Your task to perform on an android device: turn notification dots on Image 0: 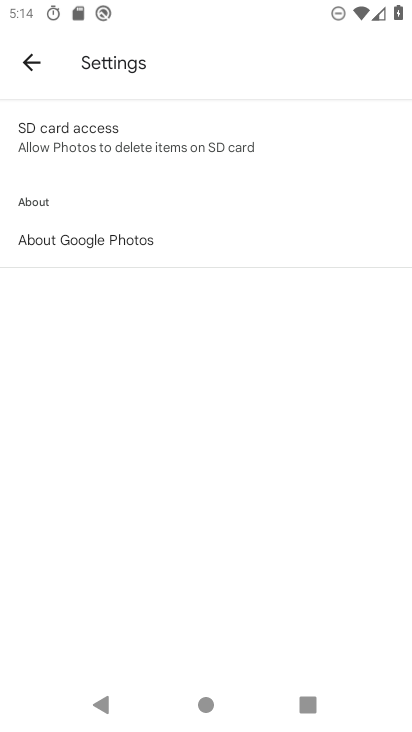
Step 0: press home button
Your task to perform on an android device: turn notification dots on Image 1: 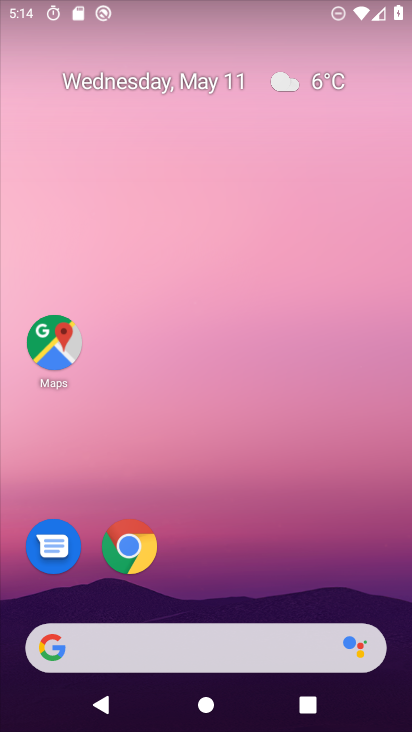
Step 1: drag from (258, 624) to (234, 176)
Your task to perform on an android device: turn notification dots on Image 2: 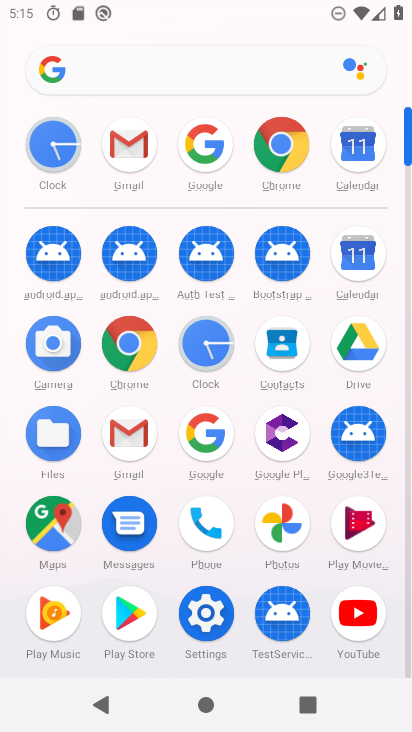
Step 2: click (206, 616)
Your task to perform on an android device: turn notification dots on Image 3: 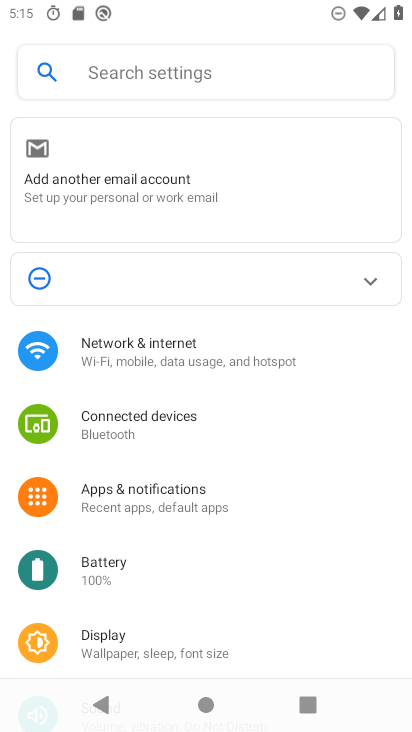
Step 3: click (155, 500)
Your task to perform on an android device: turn notification dots on Image 4: 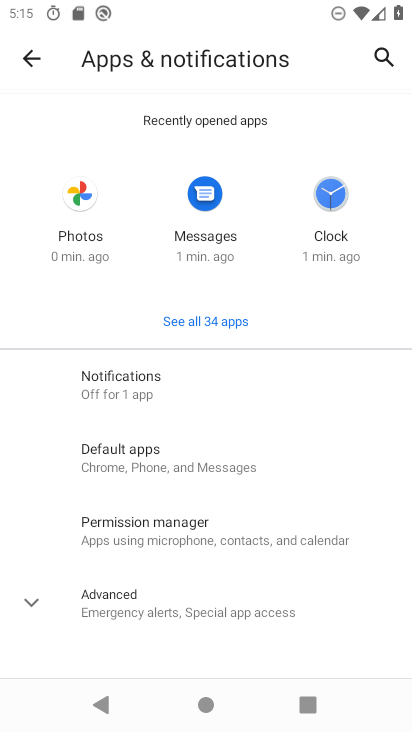
Step 4: click (142, 377)
Your task to perform on an android device: turn notification dots on Image 5: 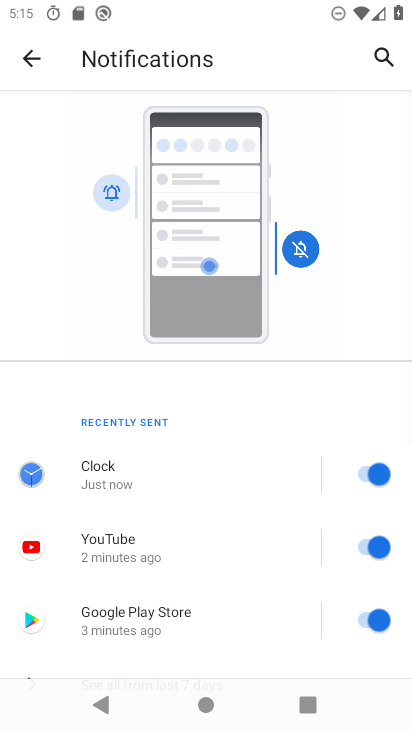
Step 5: drag from (158, 638) to (156, 220)
Your task to perform on an android device: turn notification dots on Image 6: 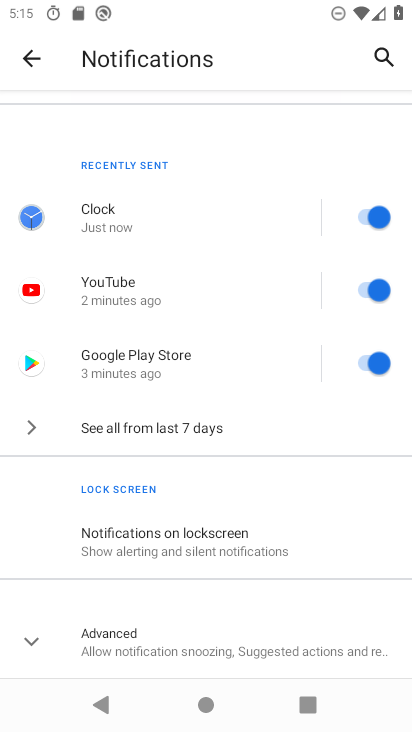
Step 6: click (131, 642)
Your task to perform on an android device: turn notification dots on Image 7: 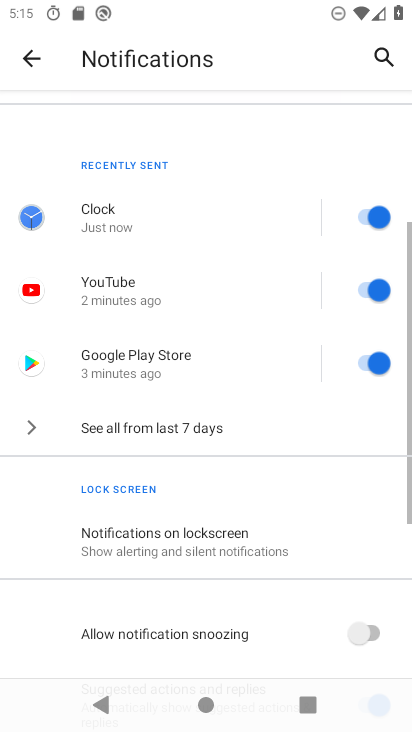
Step 7: drag from (139, 650) to (104, 303)
Your task to perform on an android device: turn notification dots on Image 8: 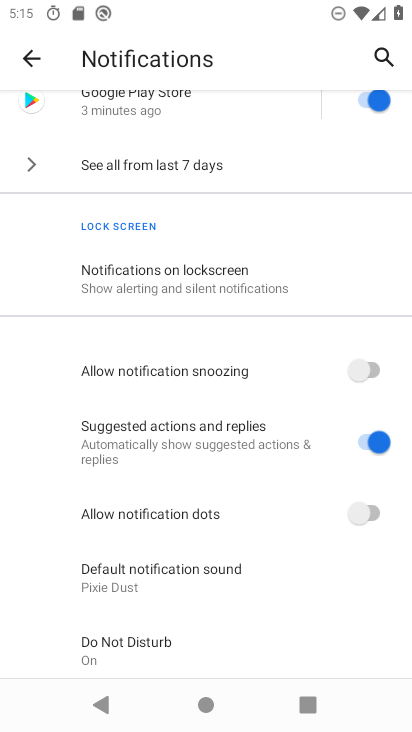
Step 8: click (376, 514)
Your task to perform on an android device: turn notification dots on Image 9: 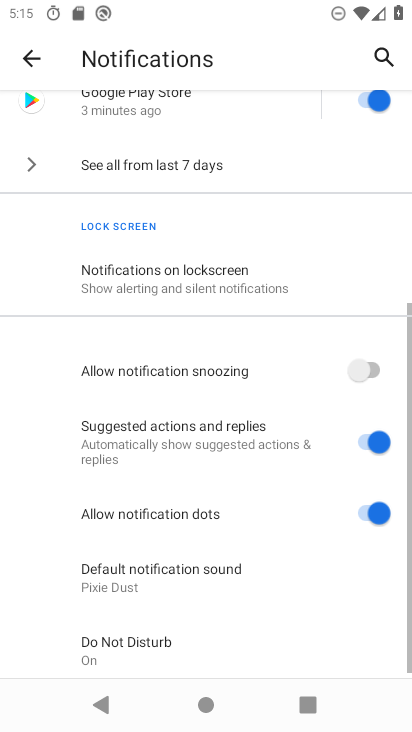
Step 9: task complete